Your task to perform on an android device: change the clock display to show seconds Image 0: 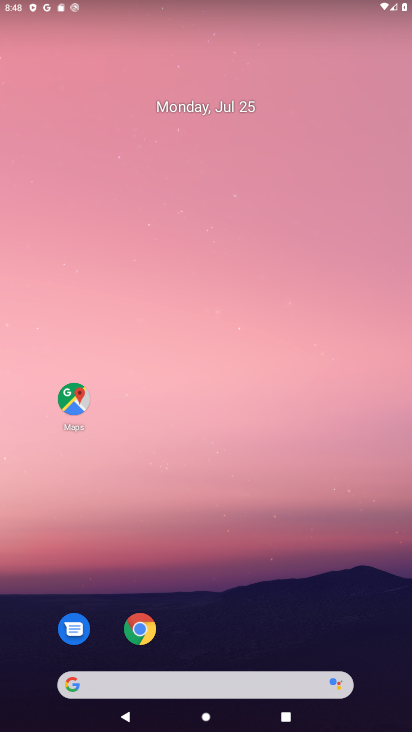
Step 0: drag from (234, 564) to (185, 14)
Your task to perform on an android device: change the clock display to show seconds Image 1: 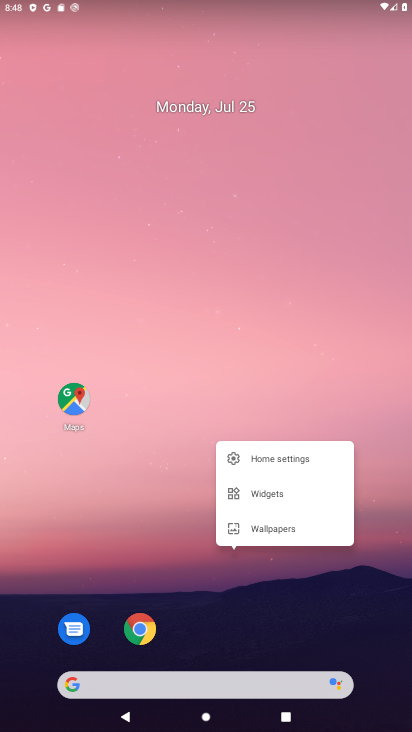
Step 1: drag from (230, 644) to (300, 284)
Your task to perform on an android device: change the clock display to show seconds Image 2: 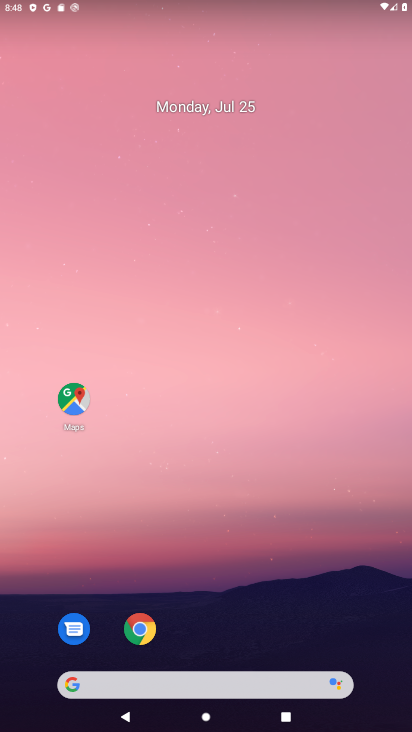
Step 2: drag from (203, 643) to (183, 5)
Your task to perform on an android device: change the clock display to show seconds Image 3: 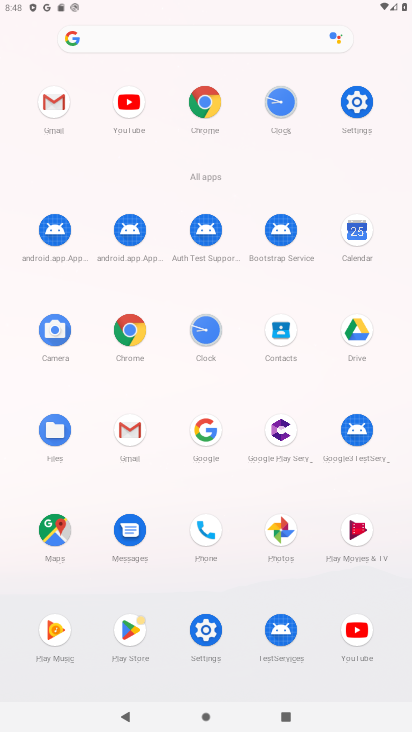
Step 3: click (282, 119)
Your task to perform on an android device: change the clock display to show seconds Image 4: 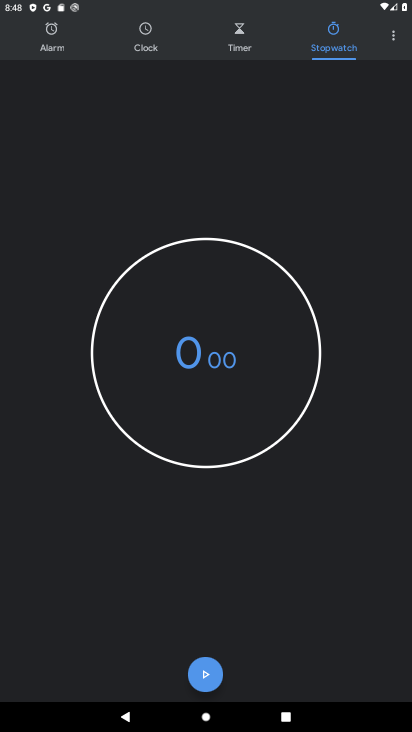
Step 4: click (403, 38)
Your task to perform on an android device: change the clock display to show seconds Image 5: 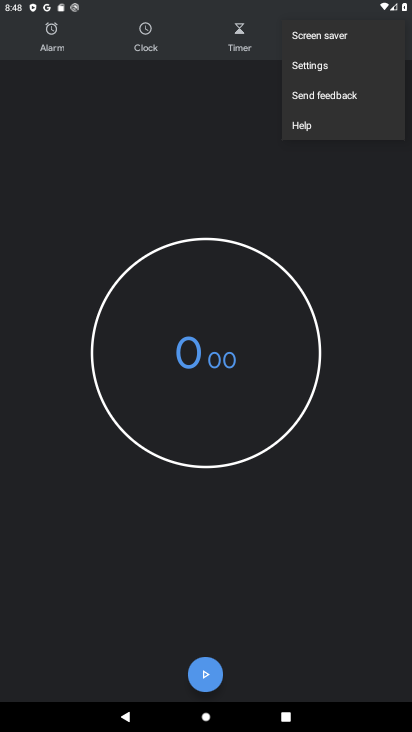
Step 5: click (353, 62)
Your task to perform on an android device: change the clock display to show seconds Image 6: 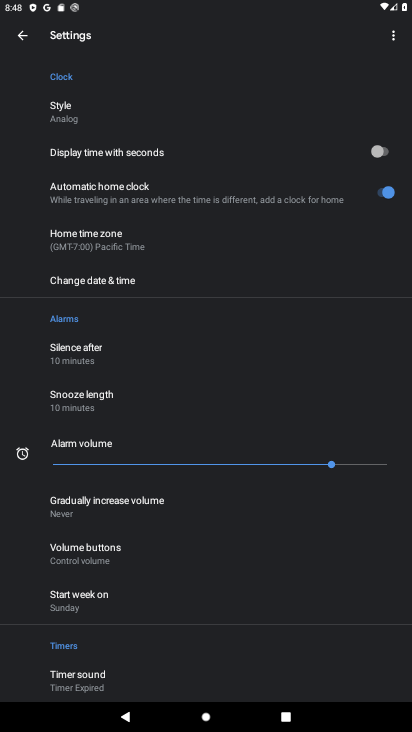
Step 6: click (385, 159)
Your task to perform on an android device: change the clock display to show seconds Image 7: 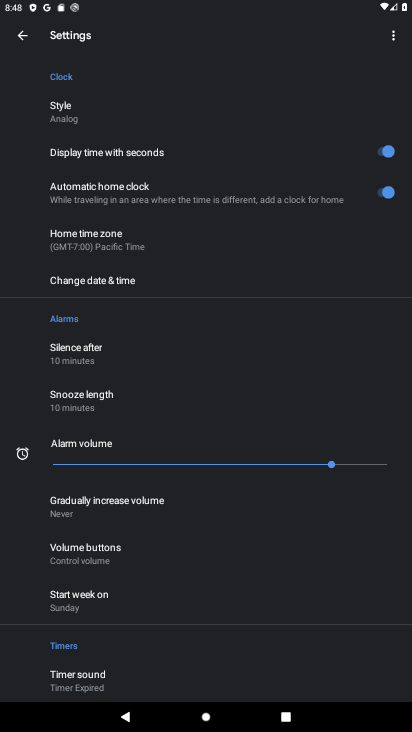
Step 7: click (383, 154)
Your task to perform on an android device: change the clock display to show seconds Image 8: 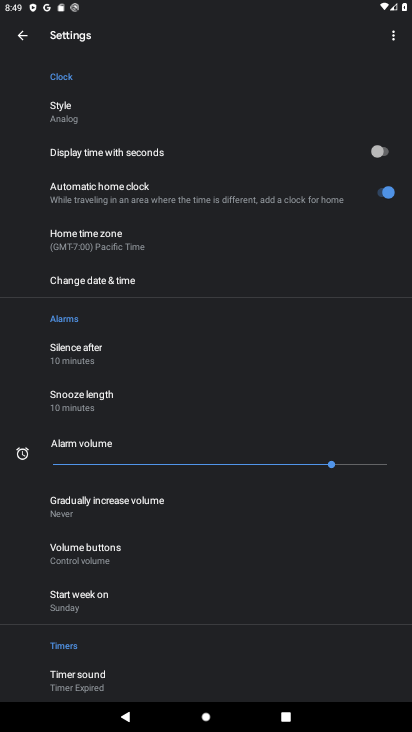
Step 8: task complete